Your task to perform on an android device: What's the weather? Image 0: 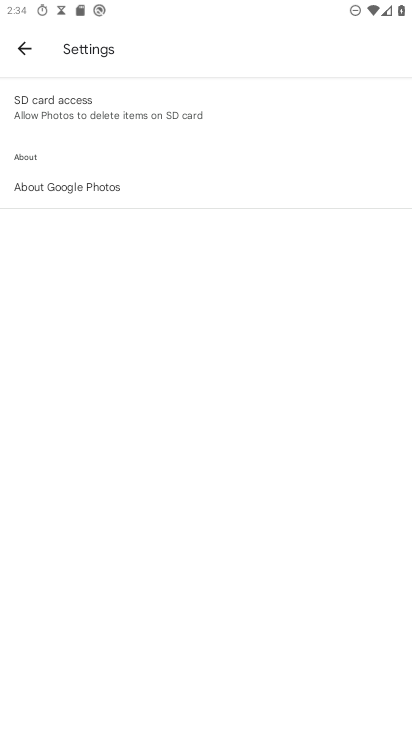
Step 0: press home button
Your task to perform on an android device: What's the weather? Image 1: 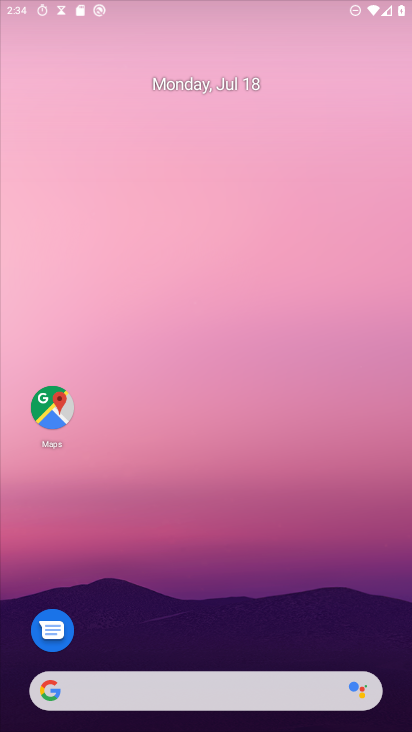
Step 1: drag from (242, 715) to (302, 3)
Your task to perform on an android device: What's the weather? Image 2: 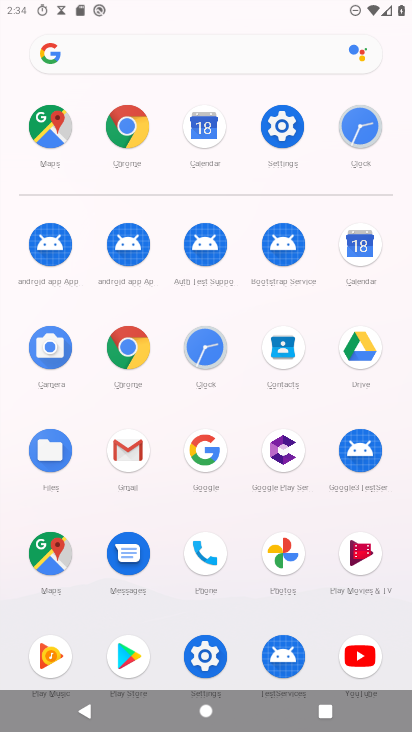
Step 2: click (116, 346)
Your task to perform on an android device: What's the weather? Image 3: 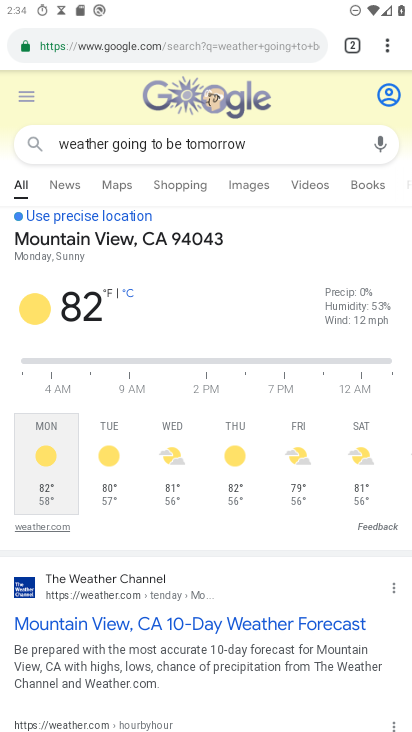
Step 3: click (246, 53)
Your task to perform on an android device: What's the weather? Image 4: 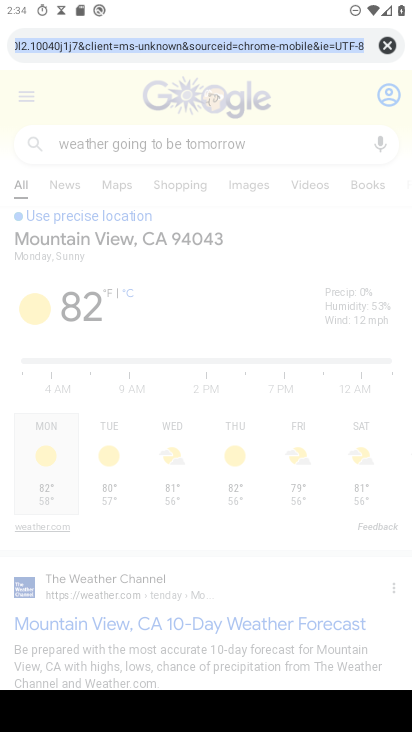
Step 4: type "whats the weather"
Your task to perform on an android device: What's the weather? Image 5: 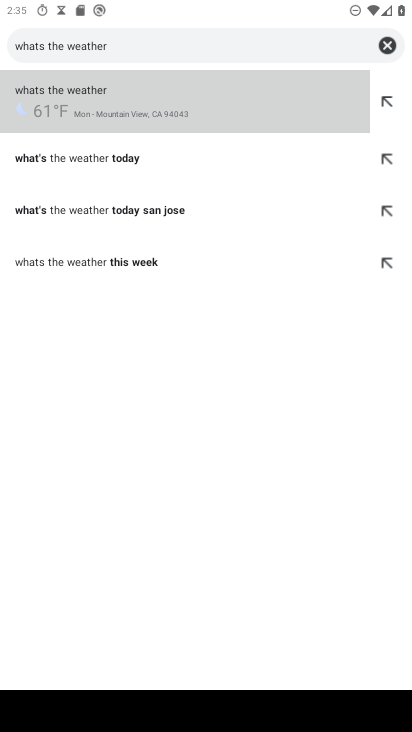
Step 5: click (232, 107)
Your task to perform on an android device: What's the weather? Image 6: 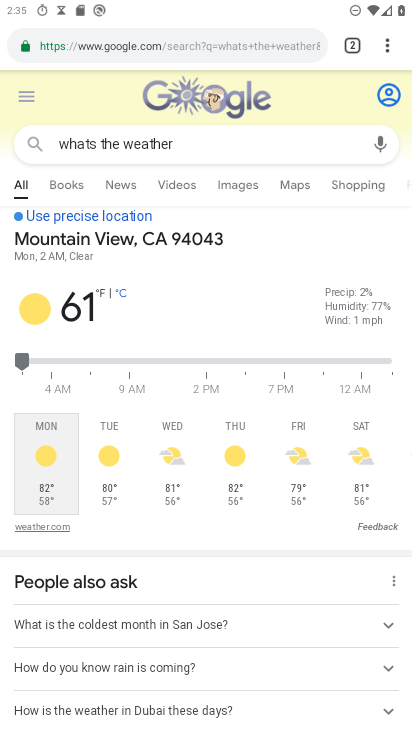
Step 6: task complete